Your task to perform on an android device: turn off picture-in-picture Image 0: 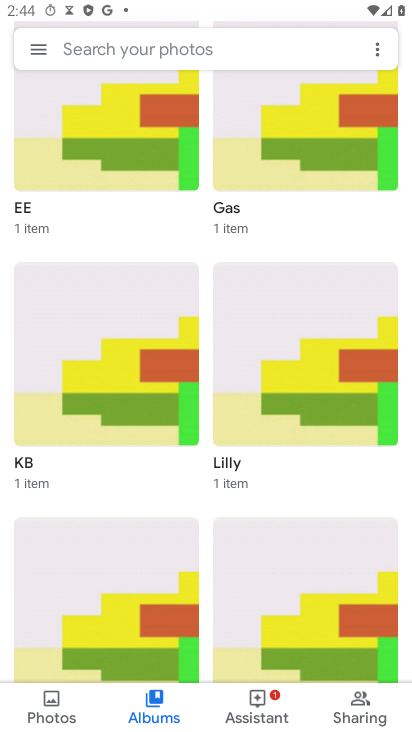
Step 0: press home button
Your task to perform on an android device: turn off picture-in-picture Image 1: 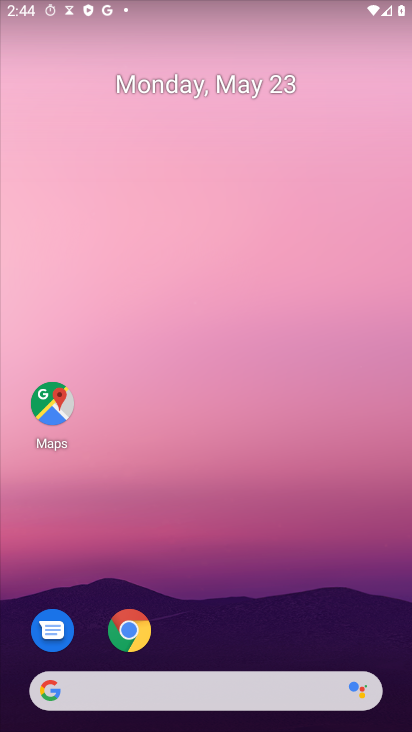
Step 1: drag from (283, 546) to (408, 206)
Your task to perform on an android device: turn off picture-in-picture Image 2: 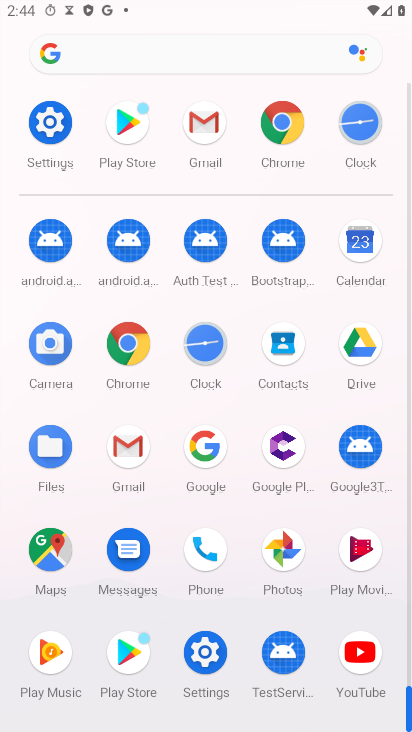
Step 2: click (287, 136)
Your task to perform on an android device: turn off picture-in-picture Image 3: 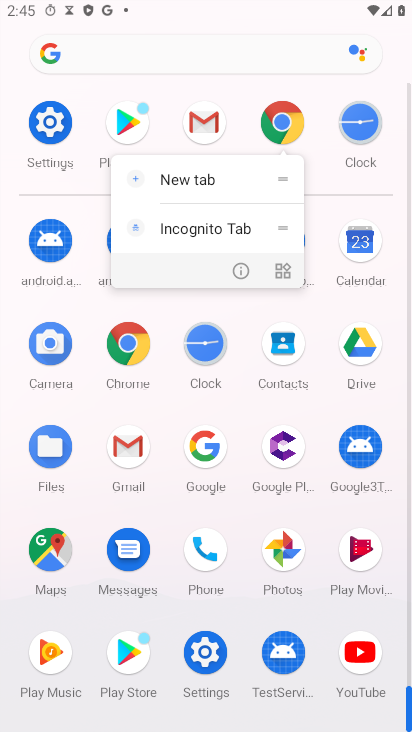
Step 3: click (287, 135)
Your task to perform on an android device: turn off picture-in-picture Image 4: 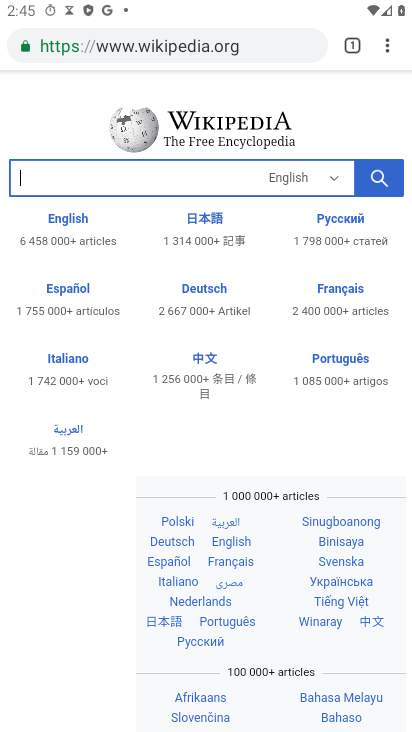
Step 4: press home button
Your task to perform on an android device: turn off picture-in-picture Image 5: 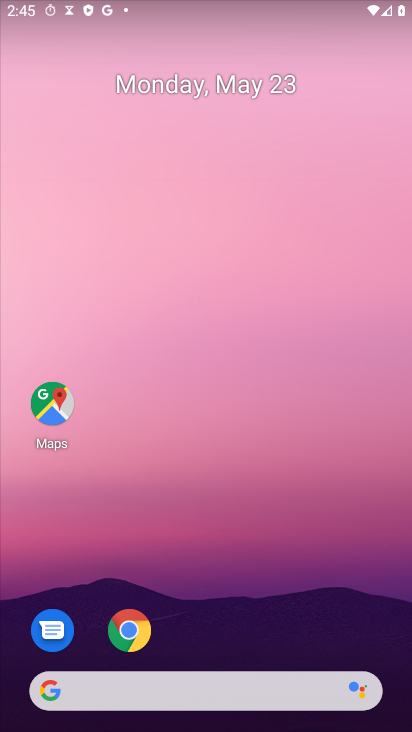
Step 5: click (124, 628)
Your task to perform on an android device: turn off picture-in-picture Image 6: 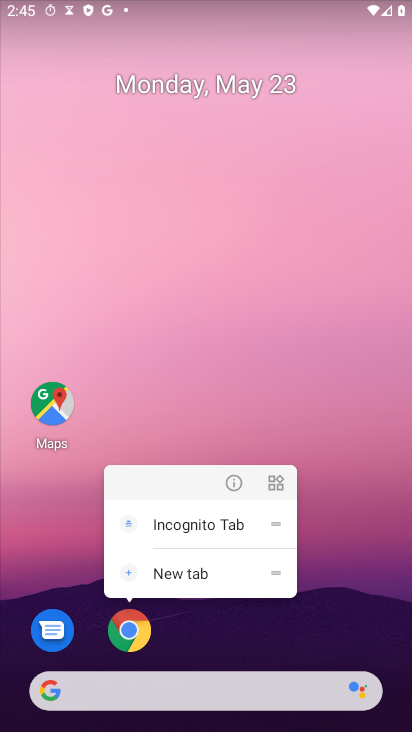
Step 6: click (227, 490)
Your task to perform on an android device: turn off picture-in-picture Image 7: 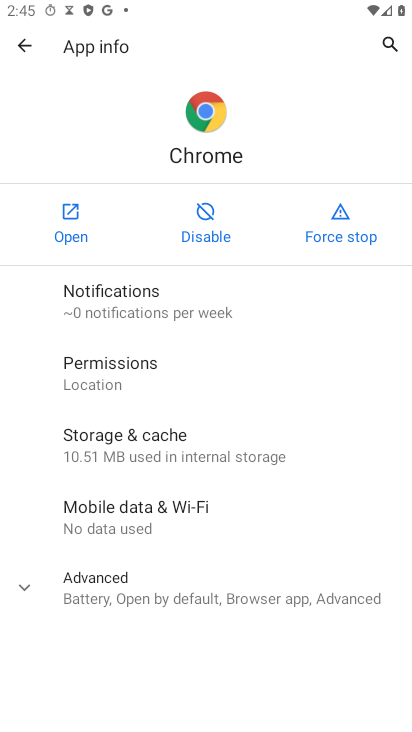
Step 7: click (146, 584)
Your task to perform on an android device: turn off picture-in-picture Image 8: 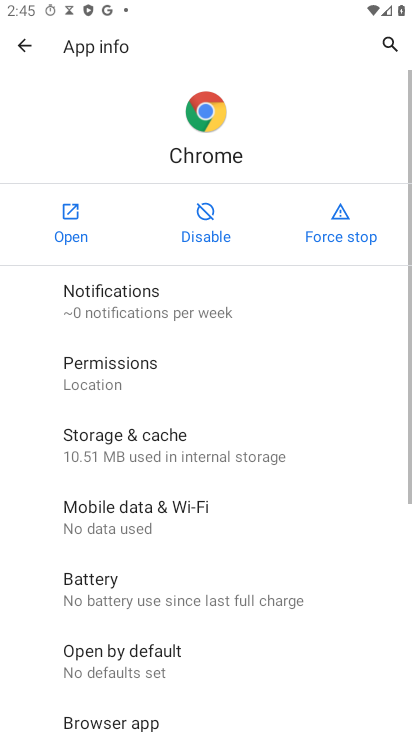
Step 8: drag from (213, 623) to (249, 218)
Your task to perform on an android device: turn off picture-in-picture Image 9: 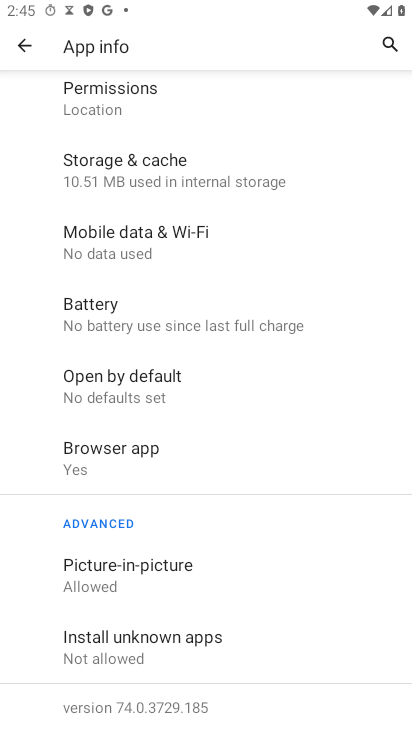
Step 9: click (158, 585)
Your task to perform on an android device: turn off picture-in-picture Image 10: 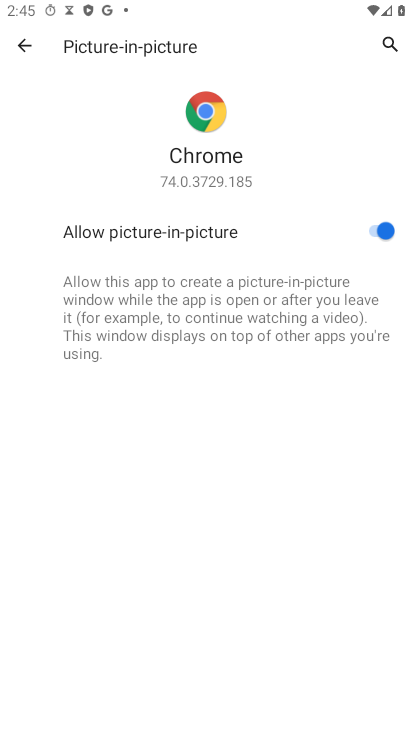
Step 10: click (368, 225)
Your task to perform on an android device: turn off picture-in-picture Image 11: 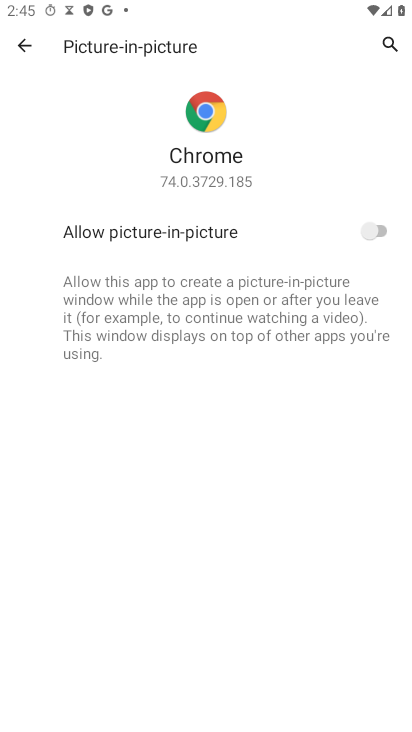
Step 11: task complete